Your task to perform on an android device: stop showing notifications on the lock screen Image 0: 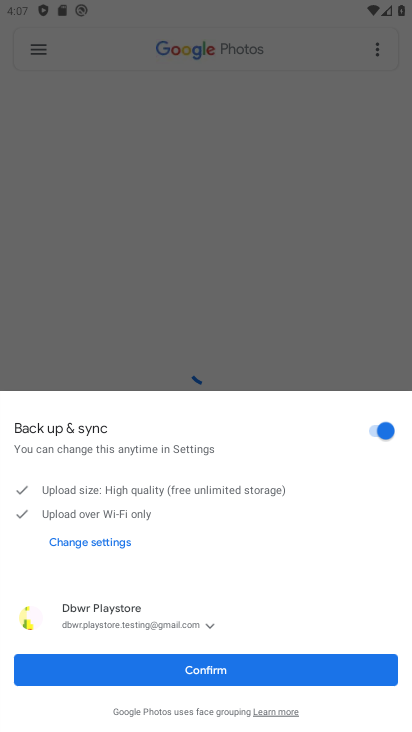
Step 0: press home button
Your task to perform on an android device: stop showing notifications on the lock screen Image 1: 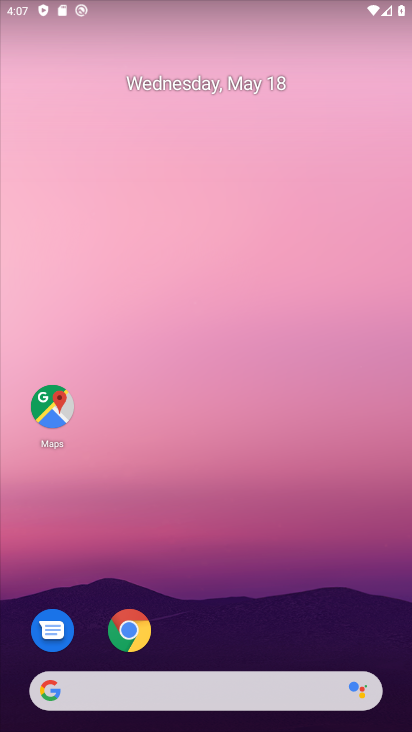
Step 1: drag from (252, 720) to (210, 221)
Your task to perform on an android device: stop showing notifications on the lock screen Image 2: 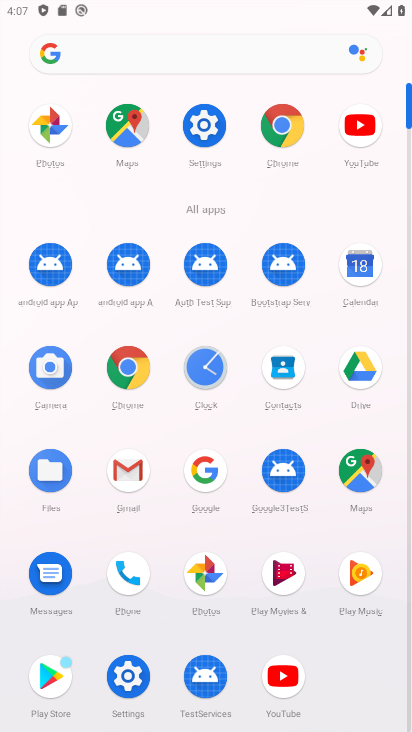
Step 2: click (201, 113)
Your task to perform on an android device: stop showing notifications on the lock screen Image 3: 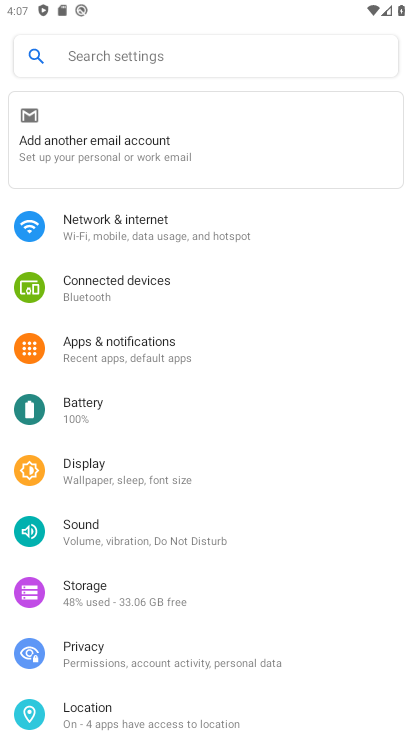
Step 3: click (96, 61)
Your task to perform on an android device: stop showing notifications on the lock screen Image 4: 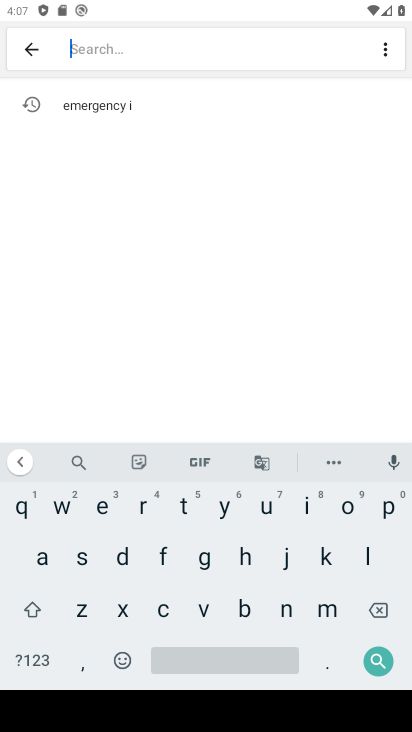
Step 4: click (290, 601)
Your task to perform on an android device: stop showing notifications on the lock screen Image 5: 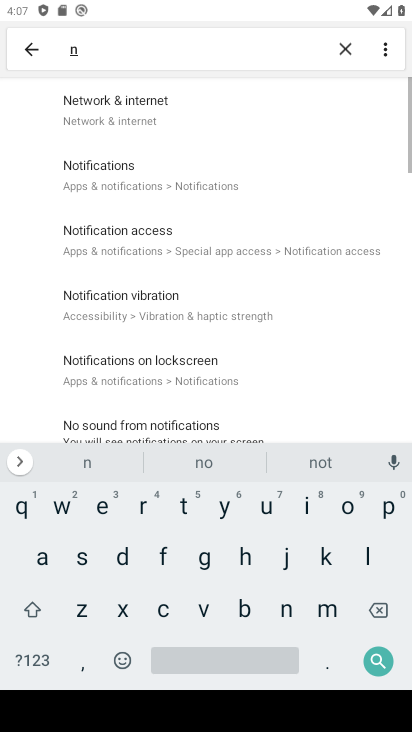
Step 5: click (347, 508)
Your task to perform on an android device: stop showing notifications on the lock screen Image 6: 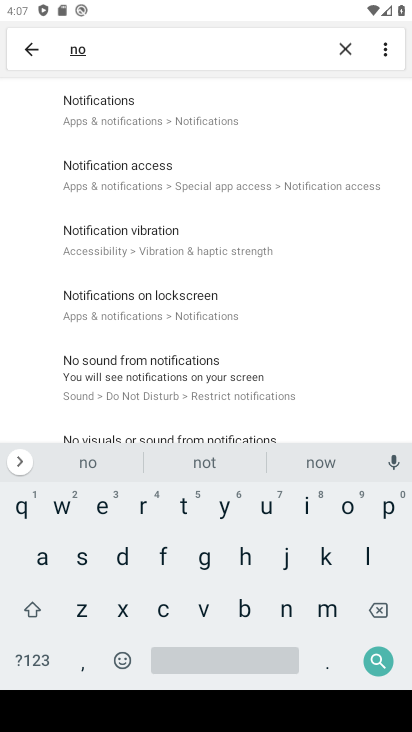
Step 6: click (145, 119)
Your task to perform on an android device: stop showing notifications on the lock screen Image 7: 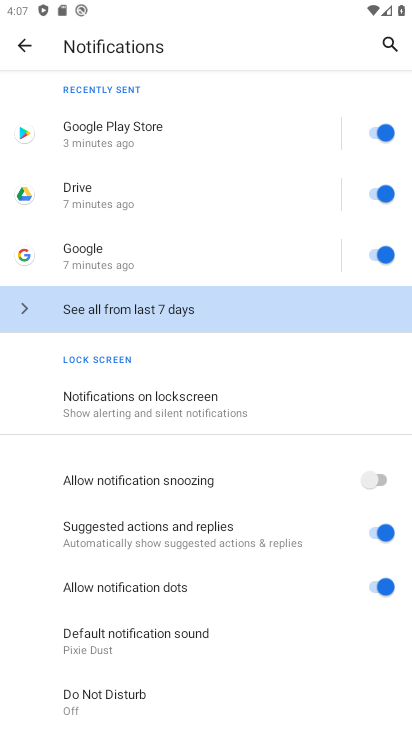
Step 7: click (121, 403)
Your task to perform on an android device: stop showing notifications on the lock screen Image 8: 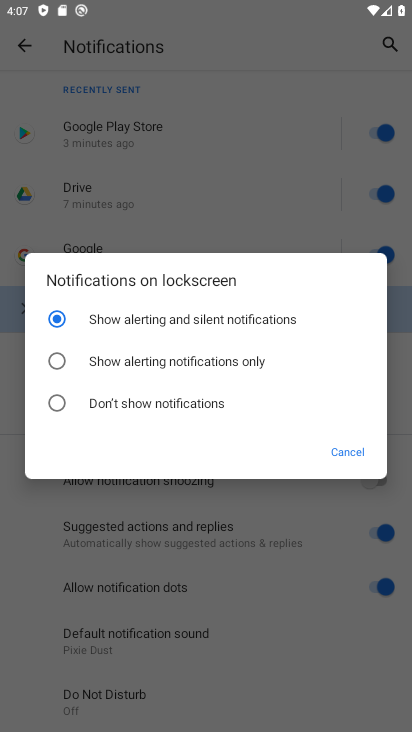
Step 8: click (115, 408)
Your task to perform on an android device: stop showing notifications on the lock screen Image 9: 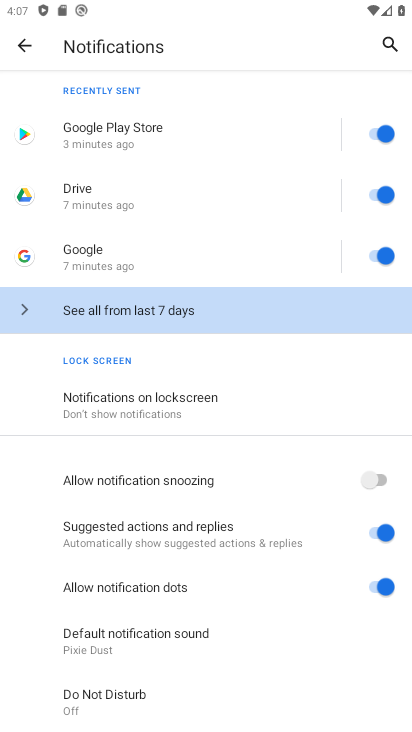
Step 9: task complete